Your task to perform on an android device: turn on notifications settings in the gmail app Image 0: 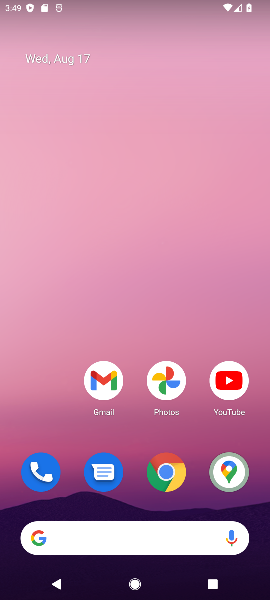
Step 0: click (92, 388)
Your task to perform on an android device: turn on notifications settings in the gmail app Image 1: 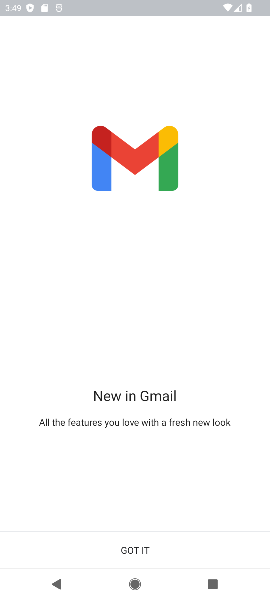
Step 1: click (157, 557)
Your task to perform on an android device: turn on notifications settings in the gmail app Image 2: 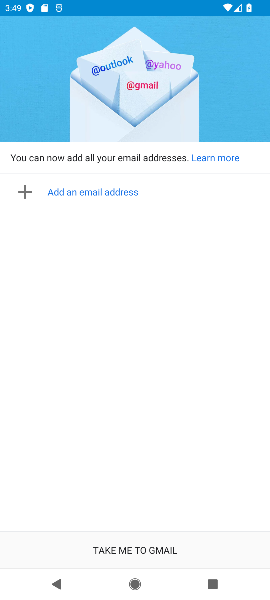
Step 2: click (156, 556)
Your task to perform on an android device: turn on notifications settings in the gmail app Image 3: 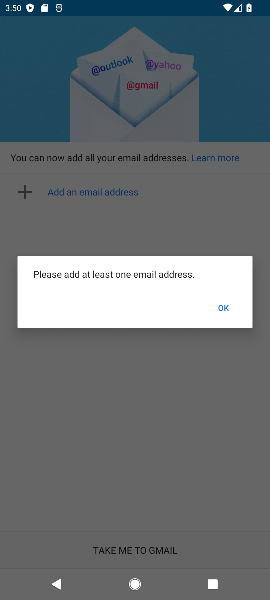
Step 3: task complete